Your task to perform on an android device: toggle data saver in the chrome app Image 0: 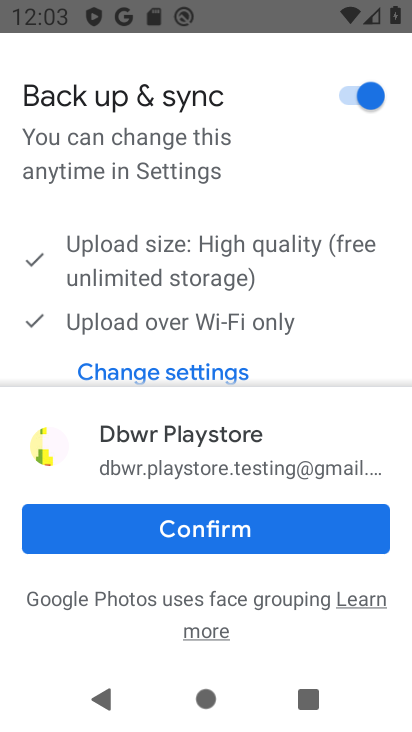
Step 0: press home button
Your task to perform on an android device: toggle data saver in the chrome app Image 1: 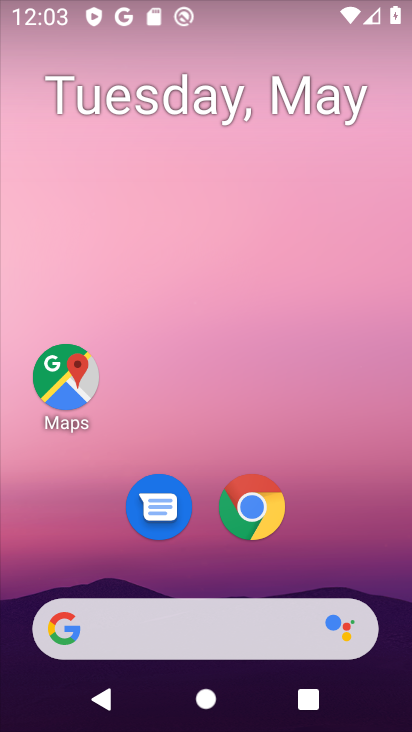
Step 1: drag from (354, 561) to (390, 129)
Your task to perform on an android device: toggle data saver in the chrome app Image 2: 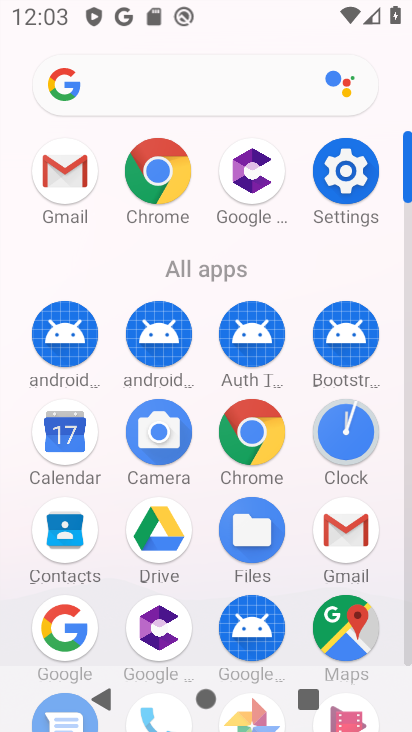
Step 2: click (258, 451)
Your task to perform on an android device: toggle data saver in the chrome app Image 3: 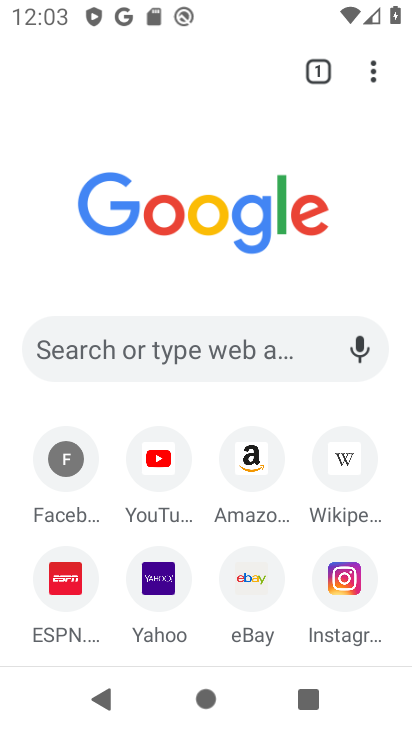
Step 3: click (374, 77)
Your task to perform on an android device: toggle data saver in the chrome app Image 4: 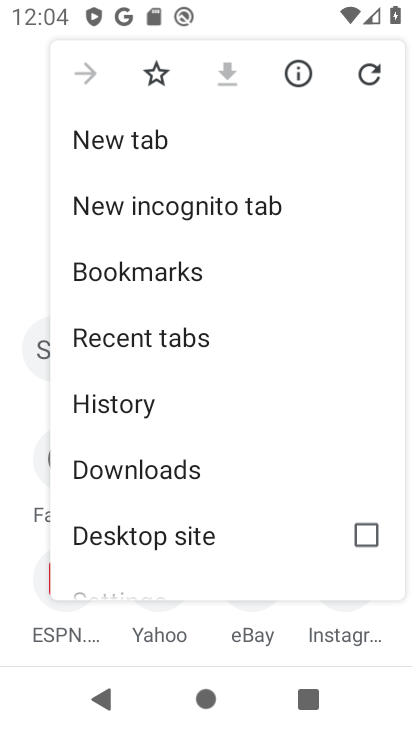
Step 4: drag from (264, 497) to (274, 319)
Your task to perform on an android device: toggle data saver in the chrome app Image 5: 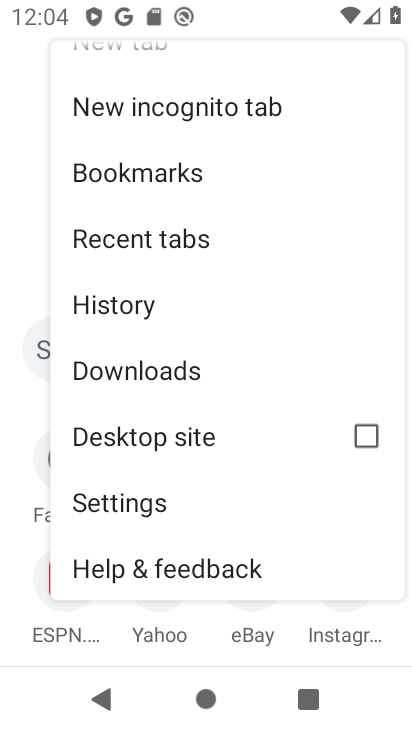
Step 5: click (145, 516)
Your task to perform on an android device: toggle data saver in the chrome app Image 6: 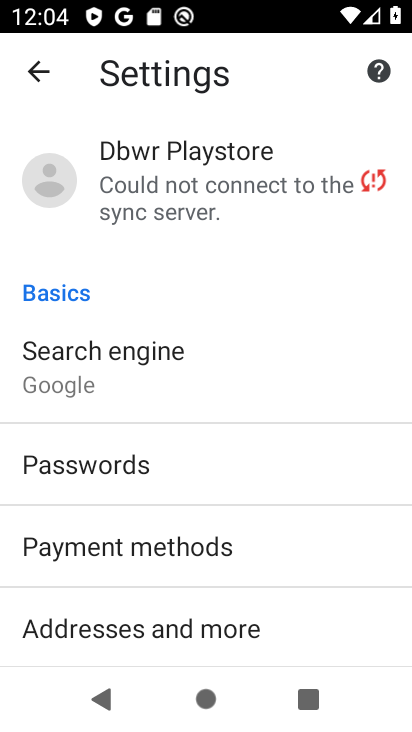
Step 6: drag from (343, 596) to (347, 392)
Your task to perform on an android device: toggle data saver in the chrome app Image 7: 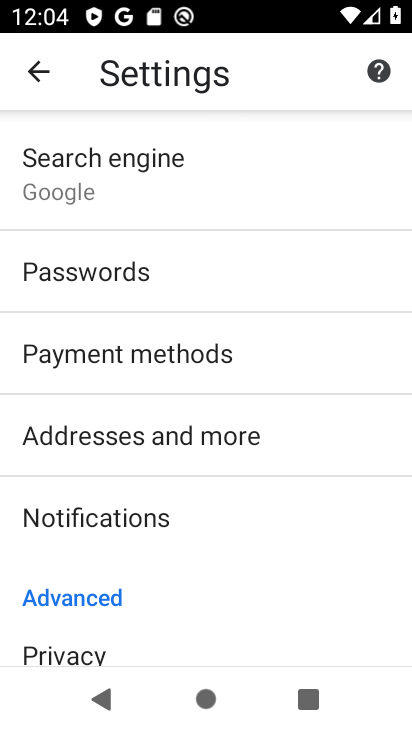
Step 7: drag from (306, 578) to (320, 454)
Your task to perform on an android device: toggle data saver in the chrome app Image 8: 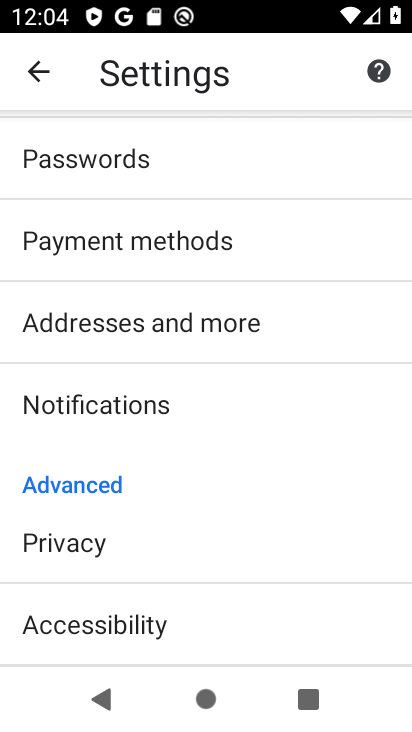
Step 8: drag from (275, 603) to (301, 465)
Your task to perform on an android device: toggle data saver in the chrome app Image 9: 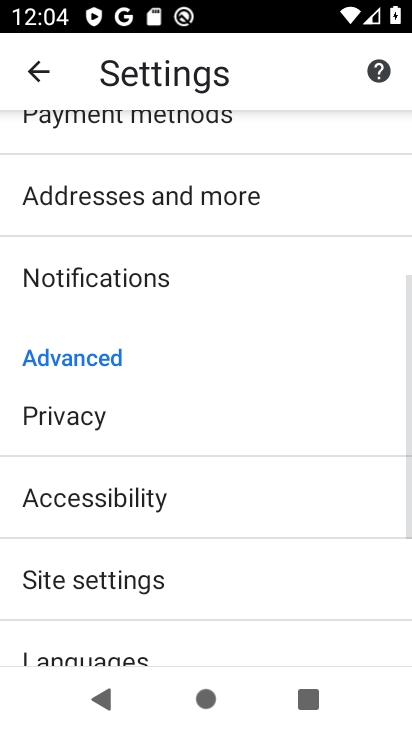
Step 9: drag from (274, 603) to (300, 444)
Your task to perform on an android device: toggle data saver in the chrome app Image 10: 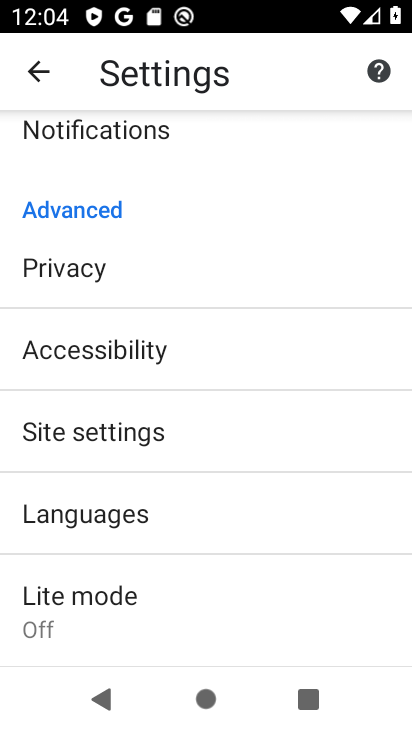
Step 10: click (173, 619)
Your task to perform on an android device: toggle data saver in the chrome app Image 11: 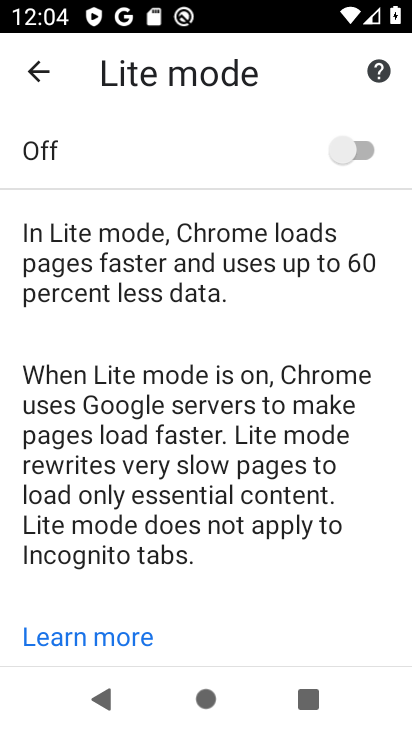
Step 11: click (327, 140)
Your task to perform on an android device: toggle data saver in the chrome app Image 12: 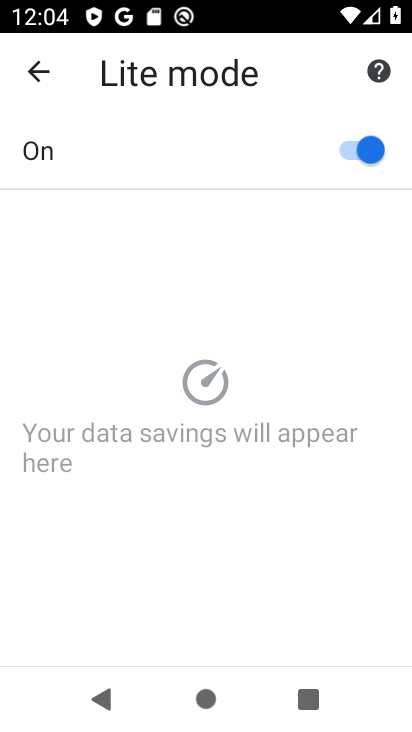
Step 12: task complete